Your task to perform on an android device: change keyboard looks Image 0: 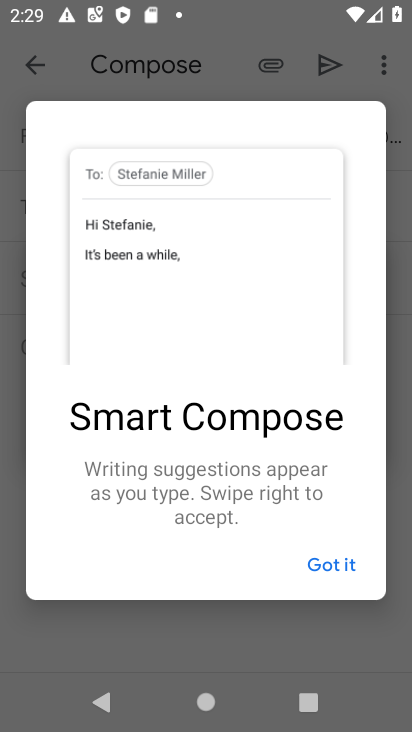
Step 0: click (352, 558)
Your task to perform on an android device: change keyboard looks Image 1: 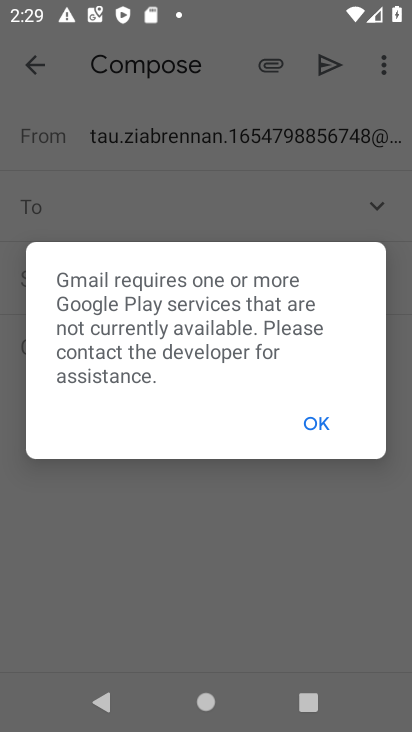
Step 1: click (322, 428)
Your task to perform on an android device: change keyboard looks Image 2: 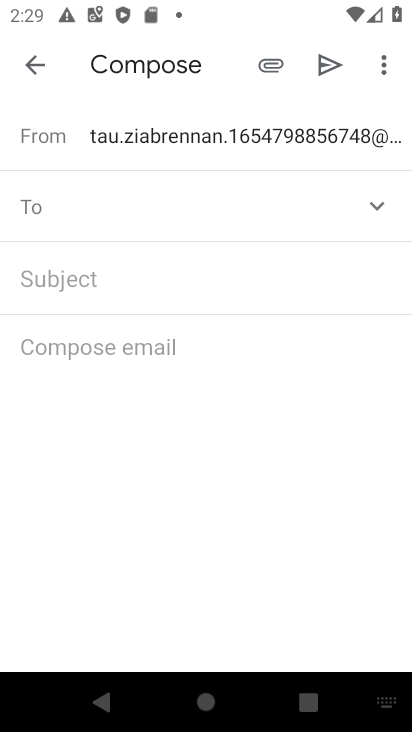
Step 2: task complete